Your task to perform on an android device: Open Google Maps and go to "Timeline" Image 0: 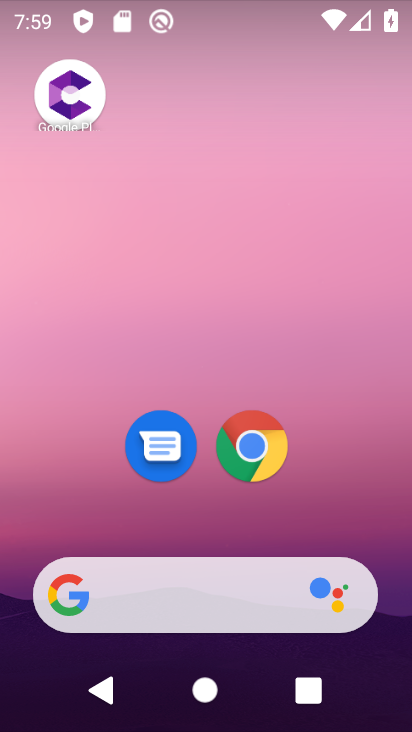
Step 0: drag from (214, 412) to (214, 142)
Your task to perform on an android device: Open Google Maps and go to "Timeline" Image 1: 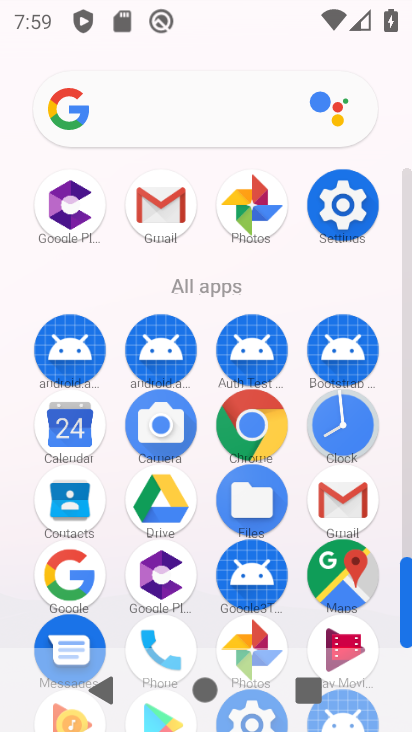
Step 1: click (357, 577)
Your task to perform on an android device: Open Google Maps and go to "Timeline" Image 2: 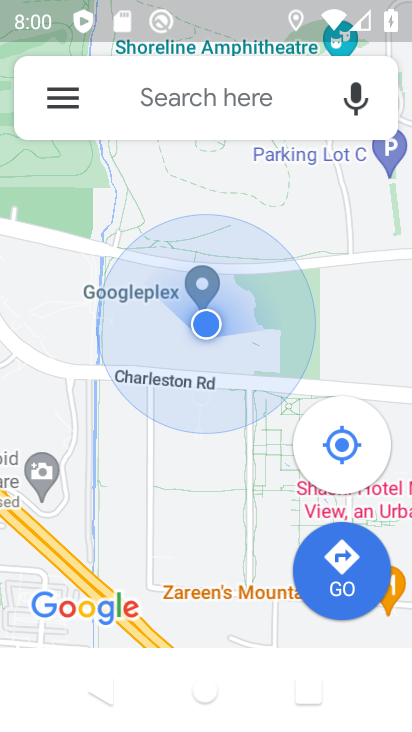
Step 2: click (60, 117)
Your task to perform on an android device: Open Google Maps and go to "Timeline" Image 3: 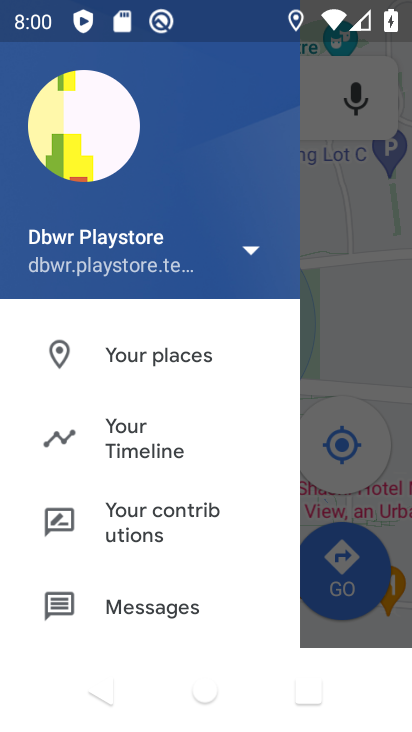
Step 3: click (158, 440)
Your task to perform on an android device: Open Google Maps and go to "Timeline" Image 4: 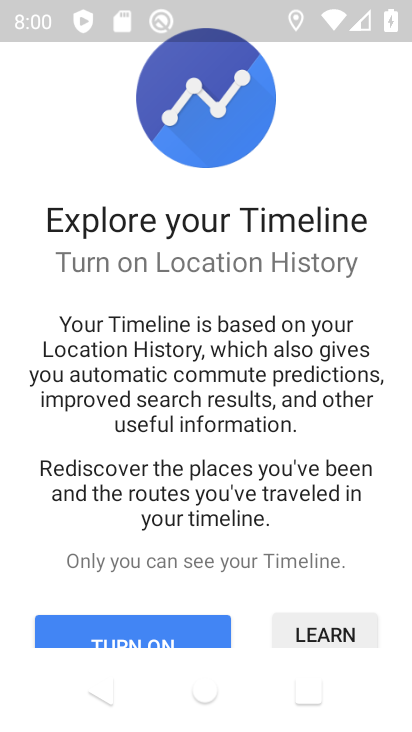
Step 4: drag from (214, 409) to (15, 1)
Your task to perform on an android device: Open Google Maps and go to "Timeline" Image 5: 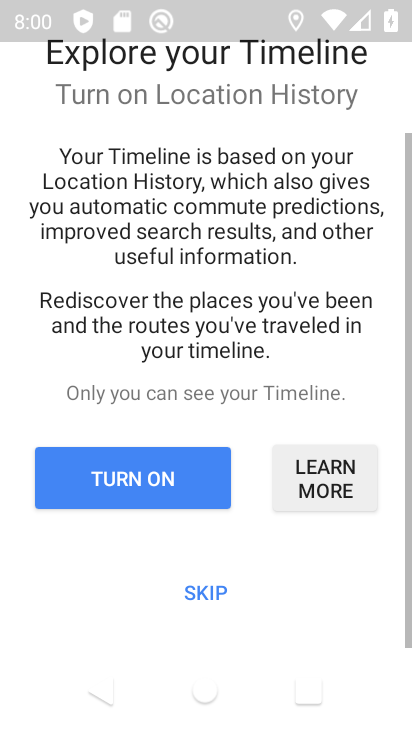
Step 5: click (221, 602)
Your task to perform on an android device: Open Google Maps and go to "Timeline" Image 6: 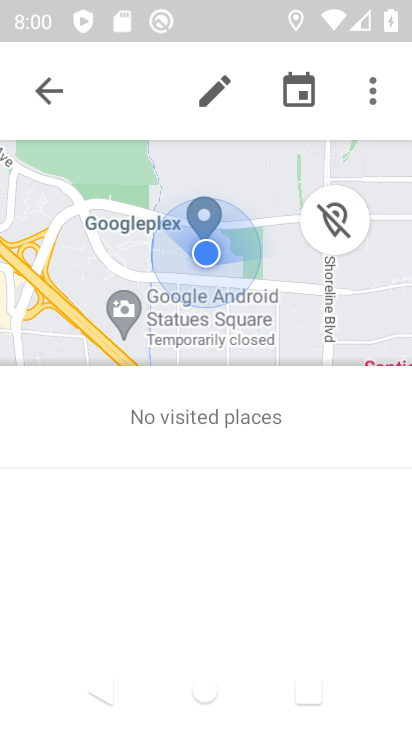
Step 6: task complete